Your task to perform on an android device: toggle wifi Image 0: 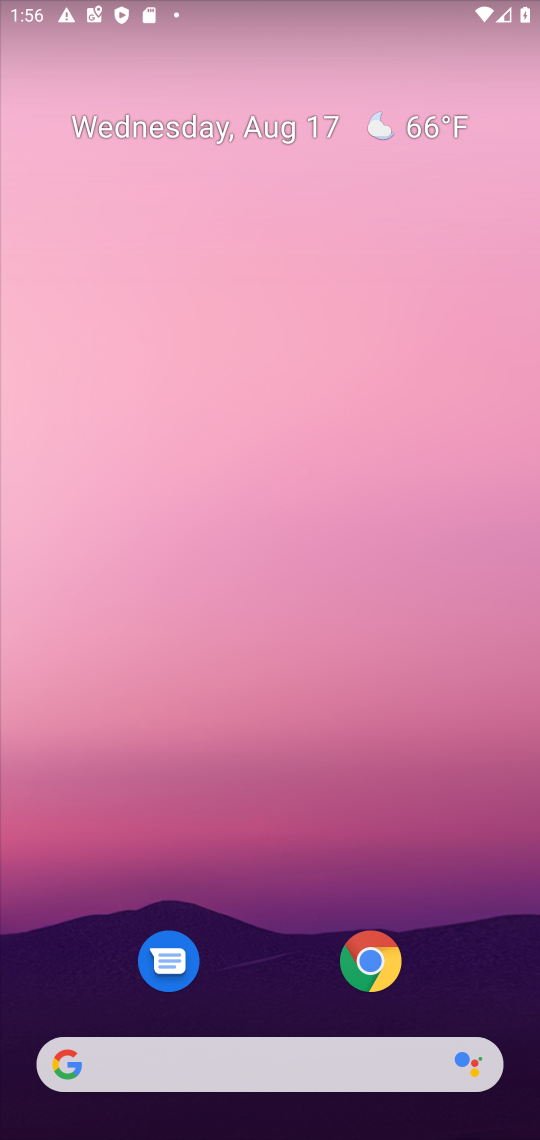
Step 0: drag from (332, 472) to (529, 708)
Your task to perform on an android device: toggle wifi Image 1: 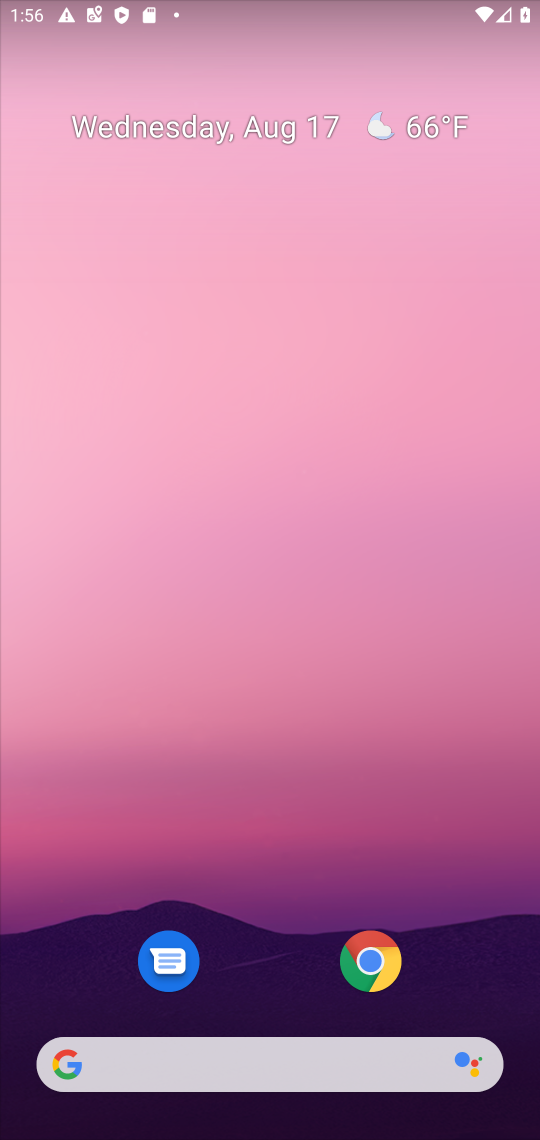
Step 1: drag from (370, 746) to (476, 196)
Your task to perform on an android device: toggle wifi Image 2: 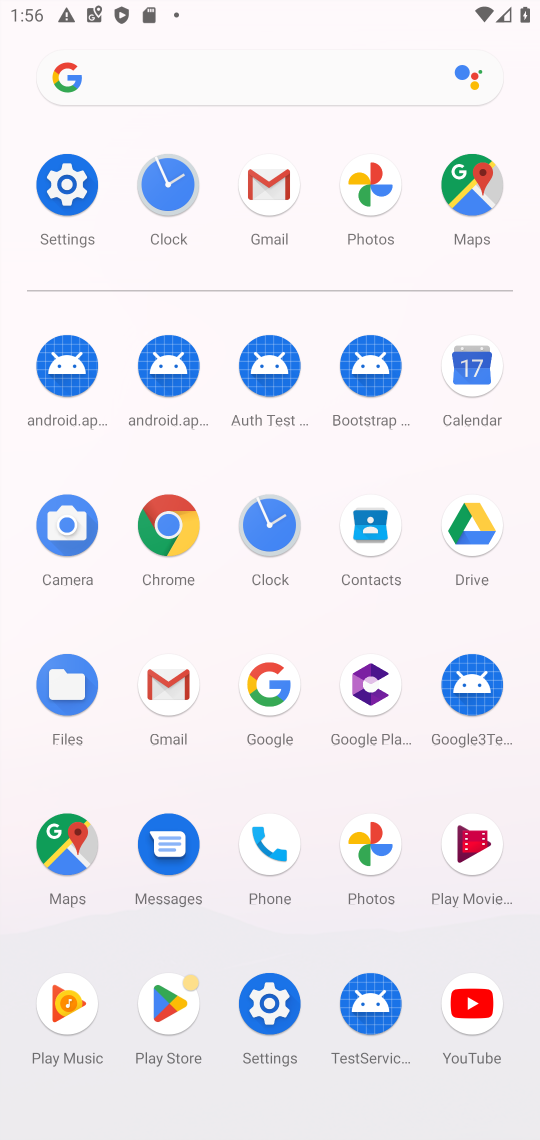
Step 2: drag from (301, 695) to (340, 405)
Your task to perform on an android device: toggle wifi Image 3: 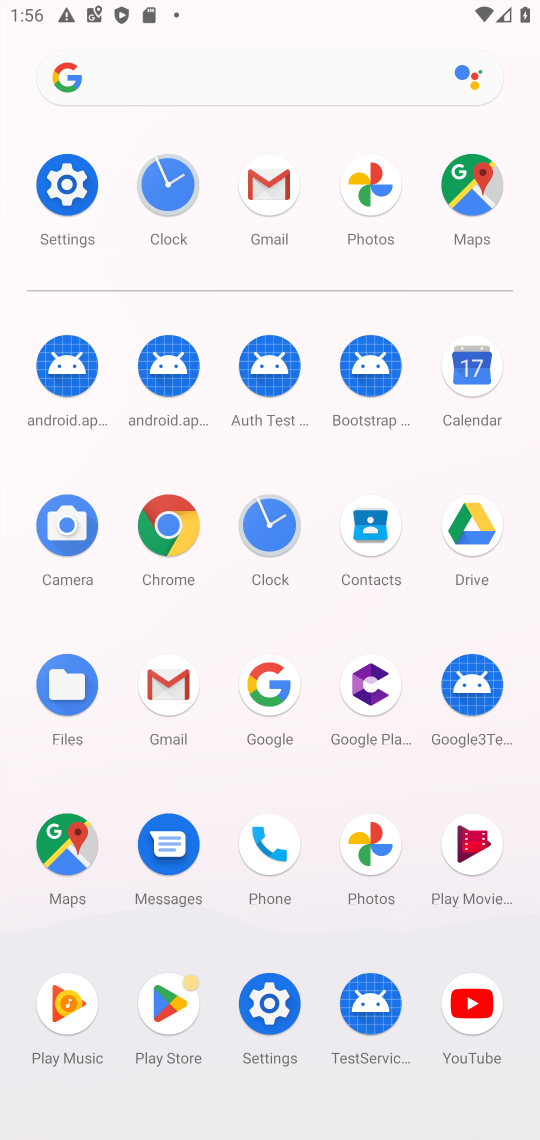
Step 3: click (83, 192)
Your task to perform on an android device: toggle wifi Image 4: 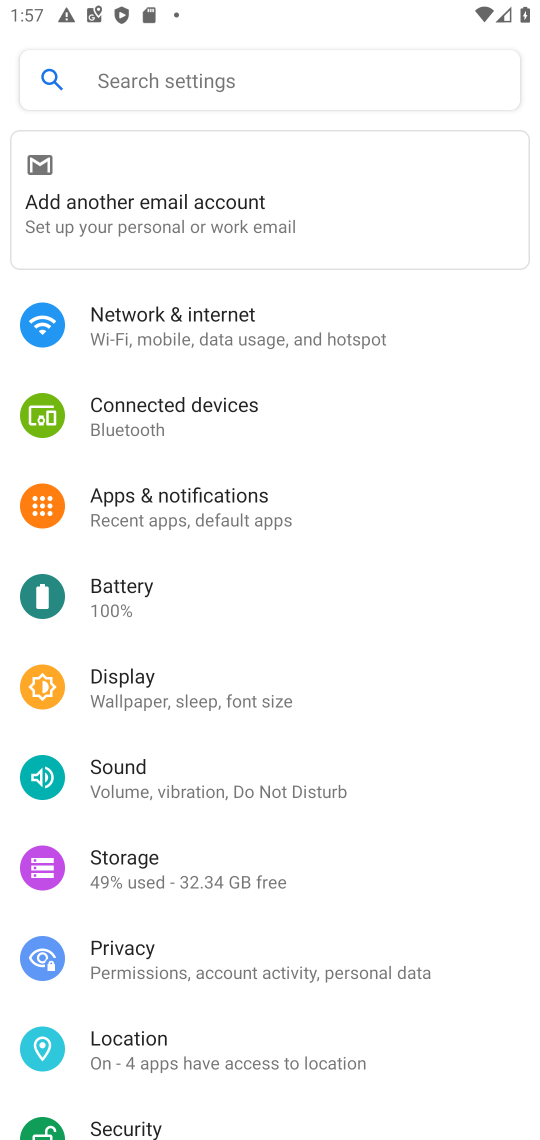
Step 4: click (327, 332)
Your task to perform on an android device: toggle wifi Image 5: 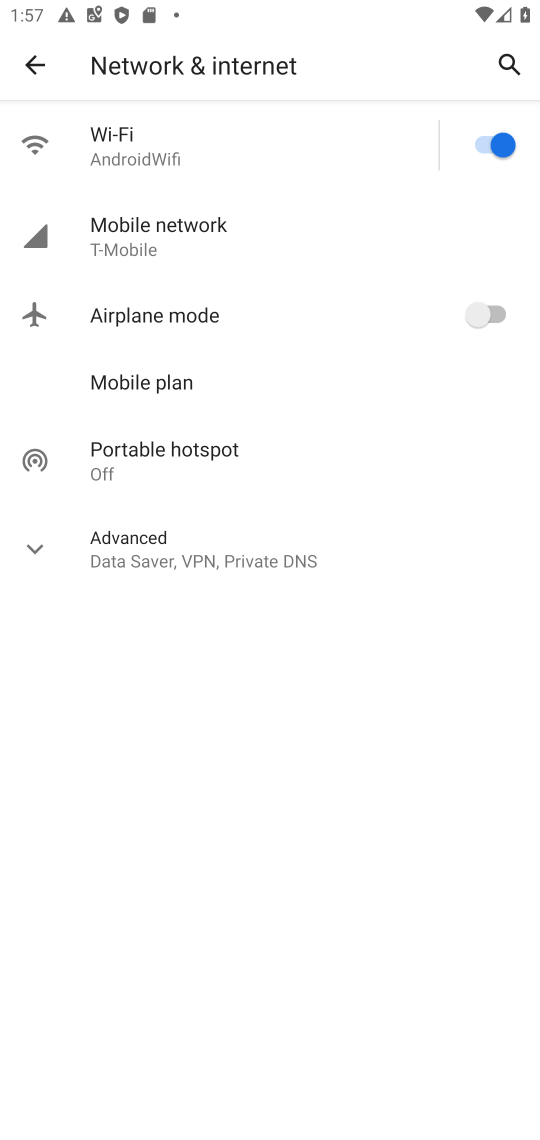
Step 5: click (477, 141)
Your task to perform on an android device: toggle wifi Image 6: 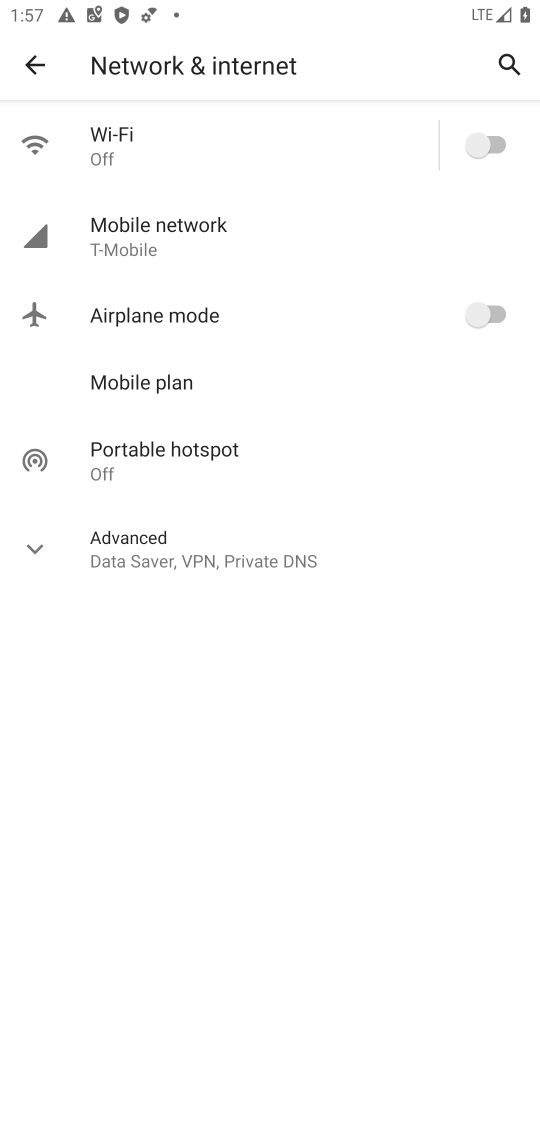
Step 6: click (477, 141)
Your task to perform on an android device: toggle wifi Image 7: 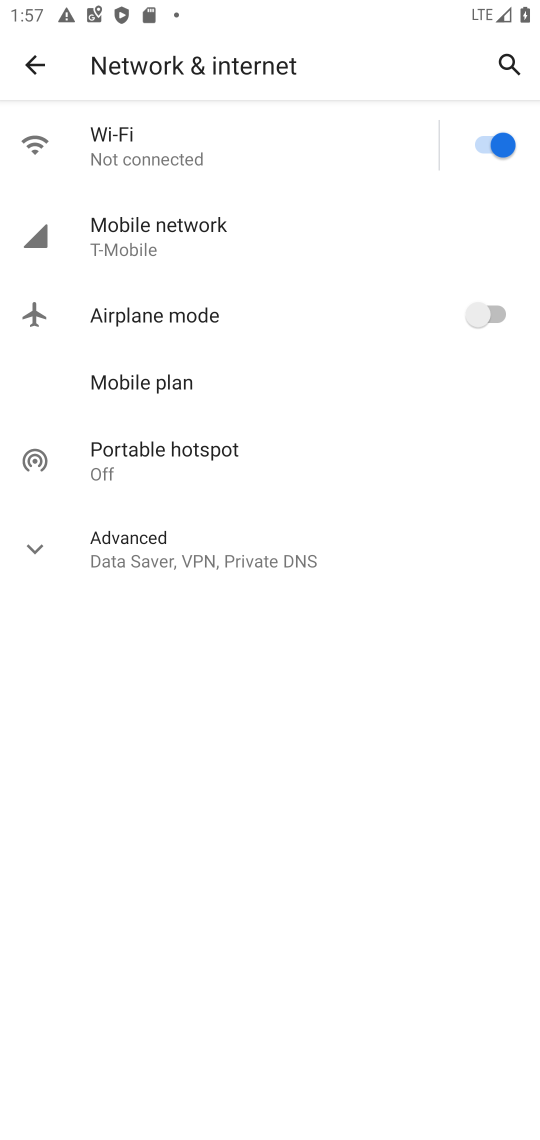
Step 7: task complete